Your task to perform on an android device: Open wifi settings Image 0: 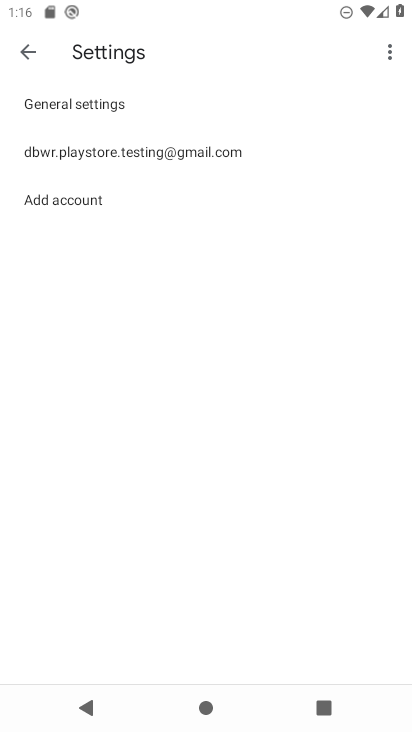
Step 0: press home button
Your task to perform on an android device: Open wifi settings Image 1: 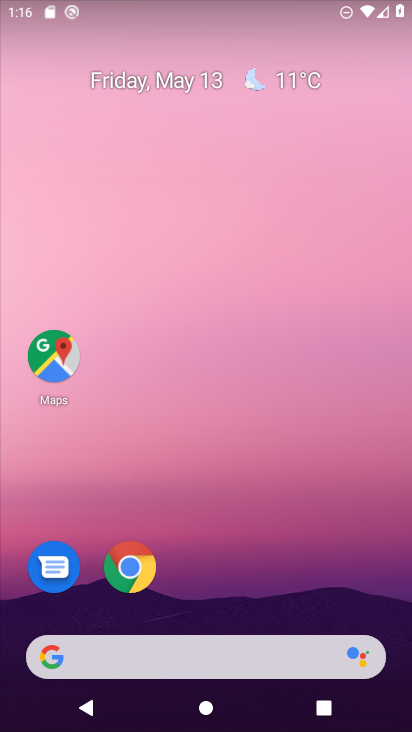
Step 1: drag from (213, 620) to (250, 6)
Your task to perform on an android device: Open wifi settings Image 2: 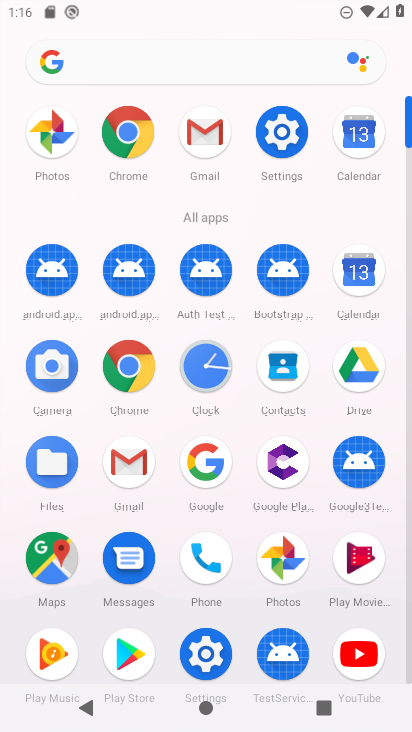
Step 2: click (279, 133)
Your task to perform on an android device: Open wifi settings Image 3: 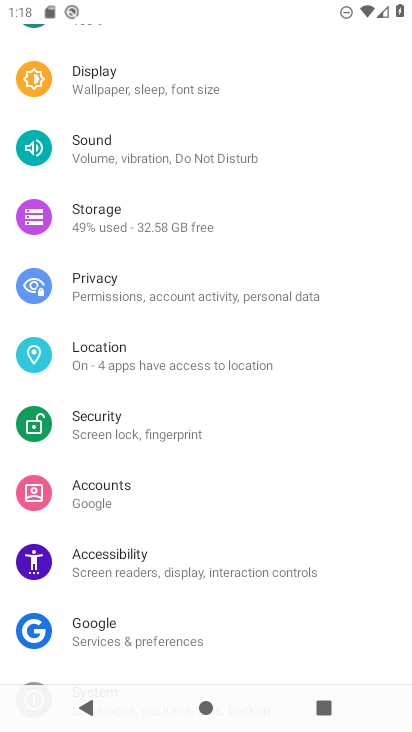
Step 3: drag from (111, 106) to (100, 722)
Your task to perform on an android device: Open wifi settings Image 4: 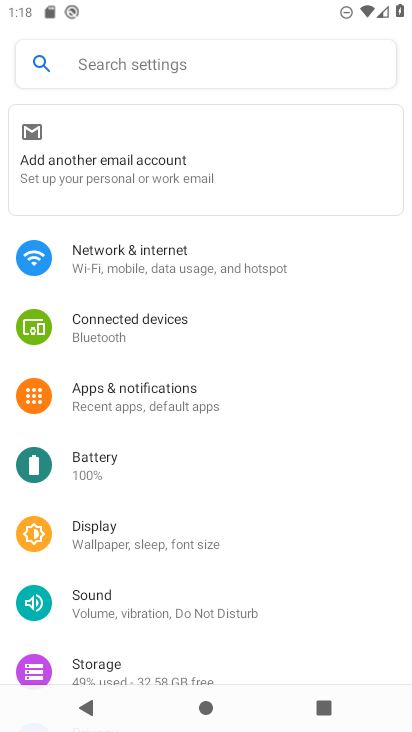
Step 4: click (125, 258)
Your task to perform on an android device: Open wifi settings Image 5: 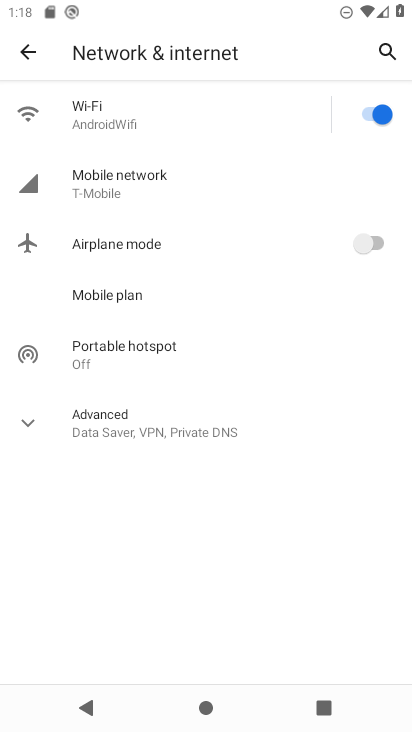
Step 5: click (275, 116)
Your task to perform on an android device: Open wifi settings Image 6: 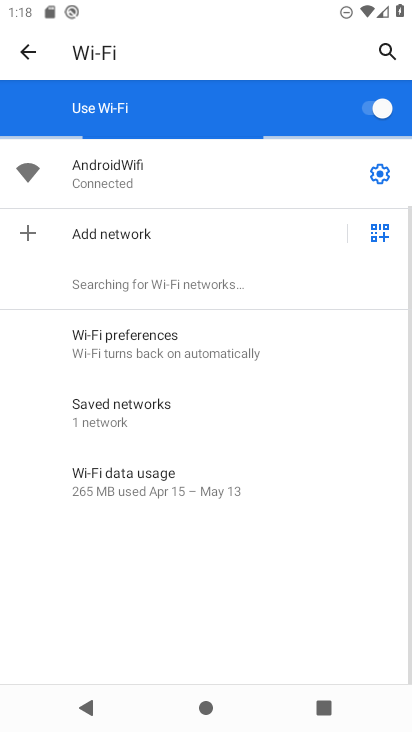
Step 6: task complete